Your task to perform on an android device: Find coffee shops on Maps Image 0: 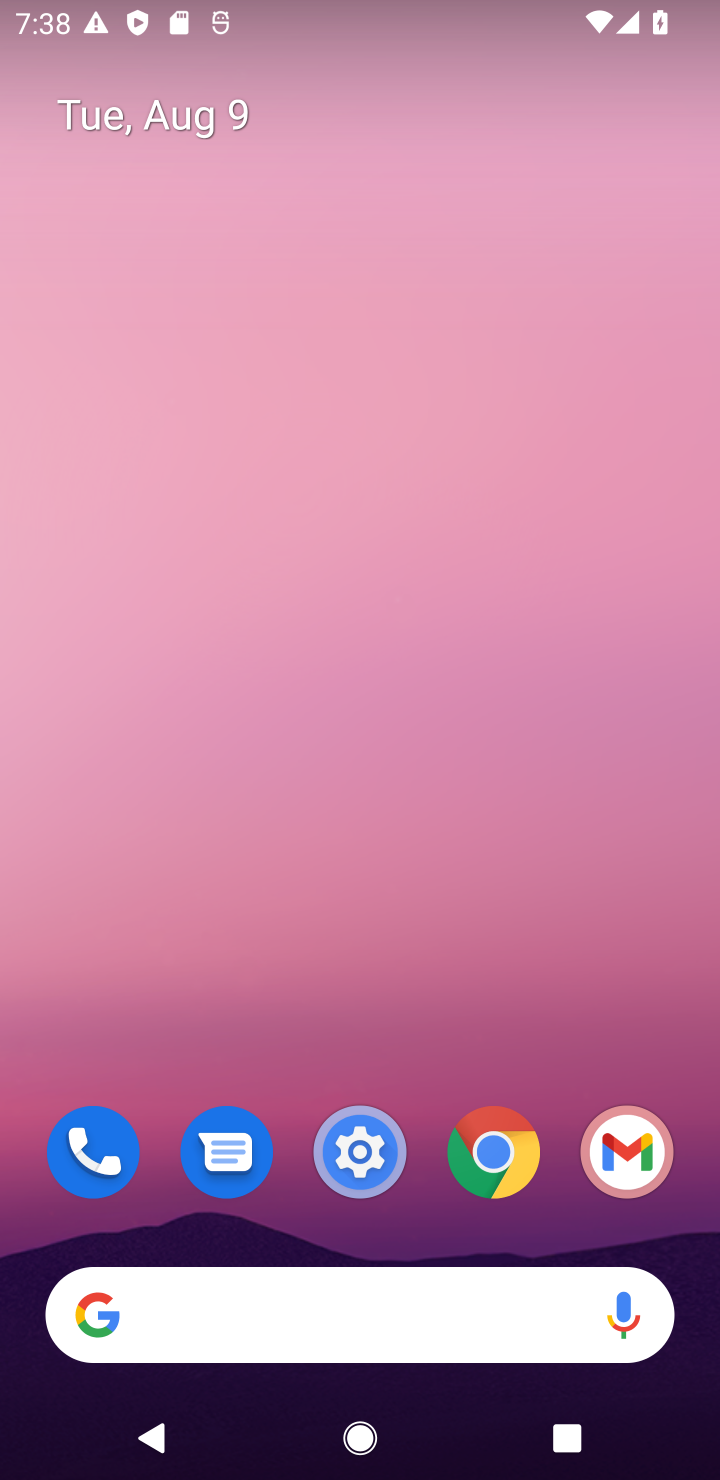
Step 0: drag from (369, 1055) to (480, 199)
Your task to perform on an android device: Find coffee shops on Maps Image 1: 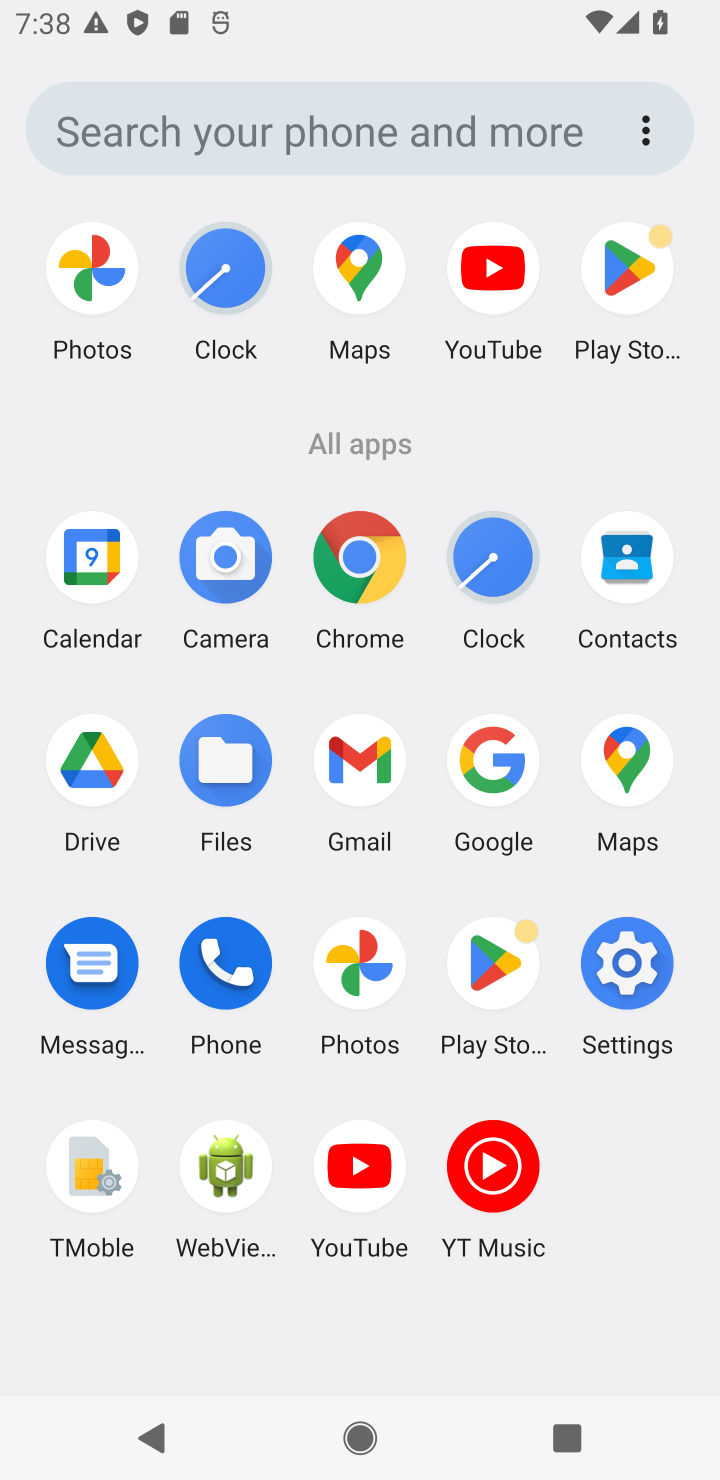
Step 1: click (382, 280)
Your task to perform on an android device: Find coffee shops on Maps Image 2: 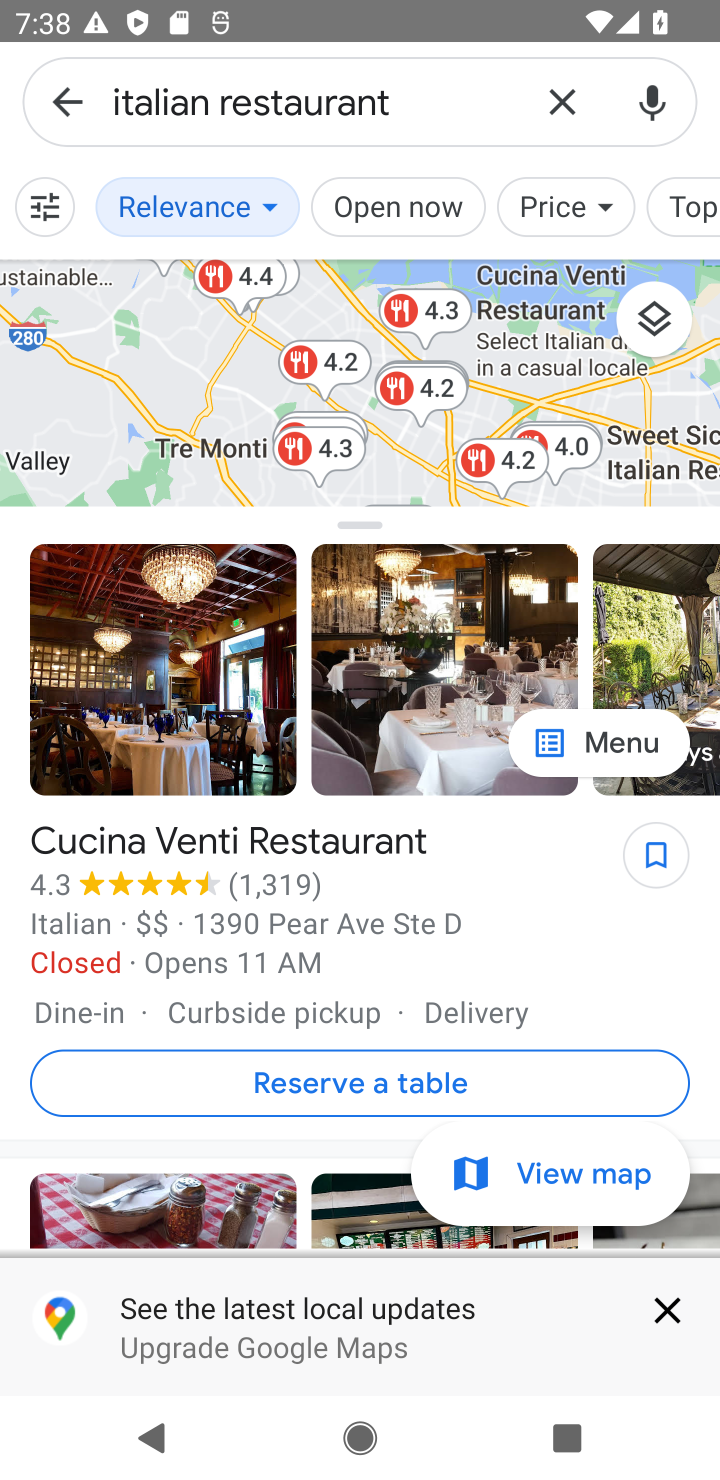
Step 2: click (558, 124)
Your task to perform on an android device: Find coffee shops on Maps Image 3: 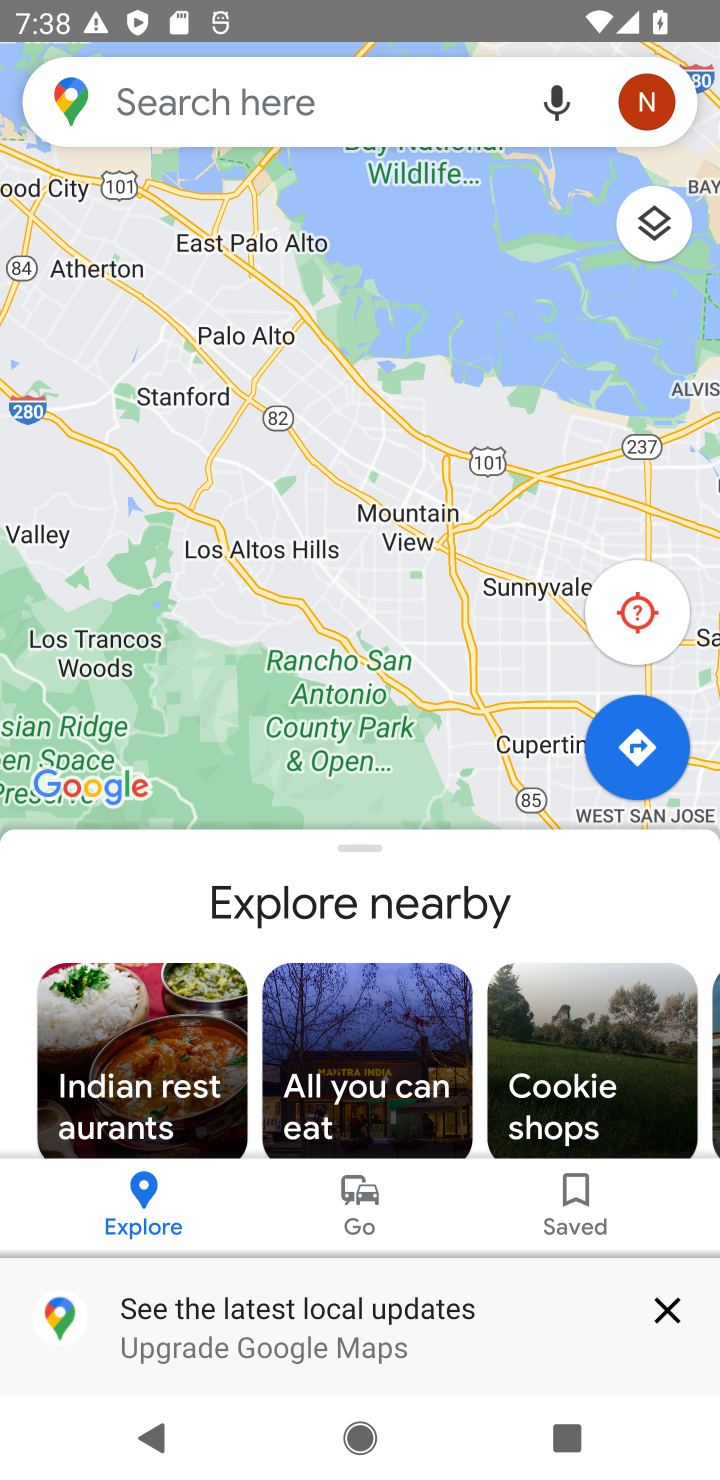
Step 3: click (375, 82)
Your task to perform on an android device: Find coffee shops on Maps Image 4: 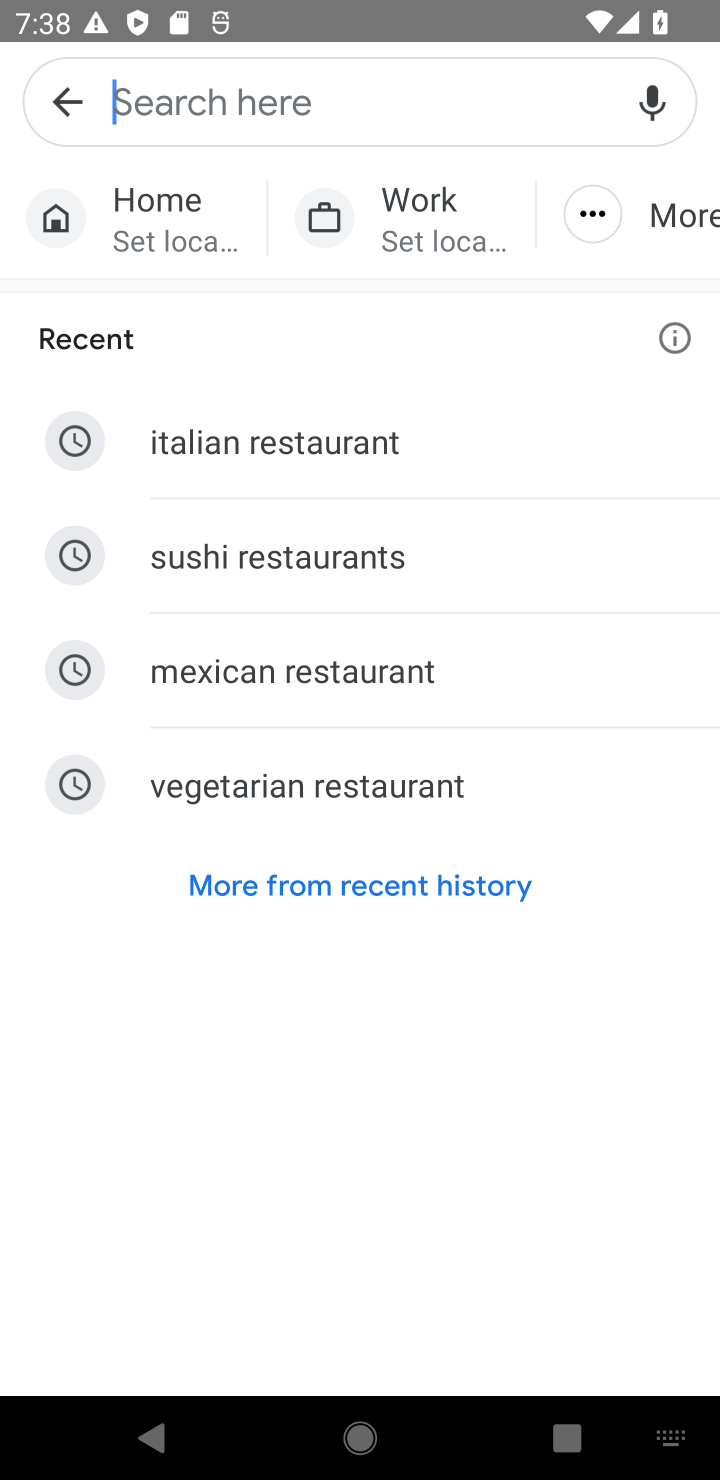
Step 4: type "coffee"
Your task to perform on an android device: Find coffee shops on Maps Image 5: 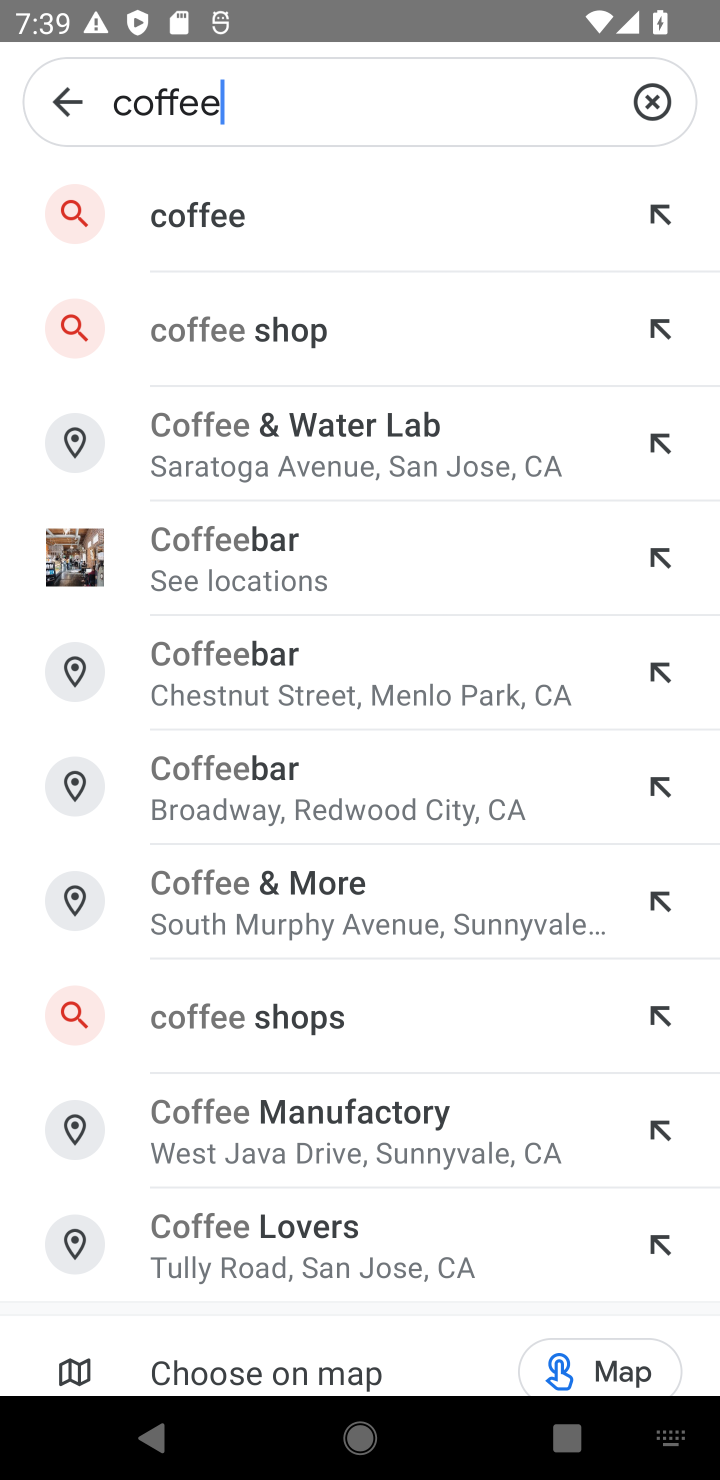
Step 5: click (322, 344)
Your task to perform on an android device: Find coffee shops on Maps Image 6: 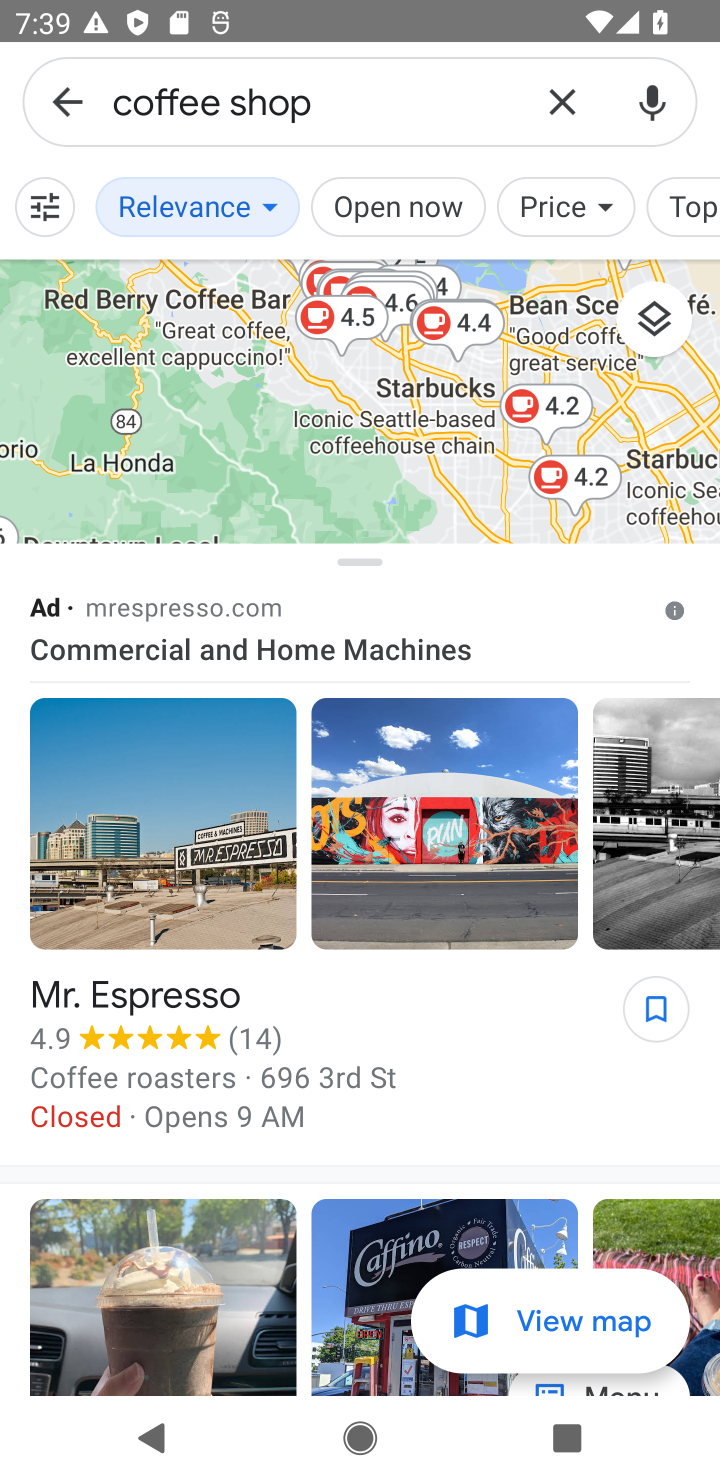
Step 6: click (355, 340)
Your task to perform on an android device: Find coffee shops on Maps Image 7: 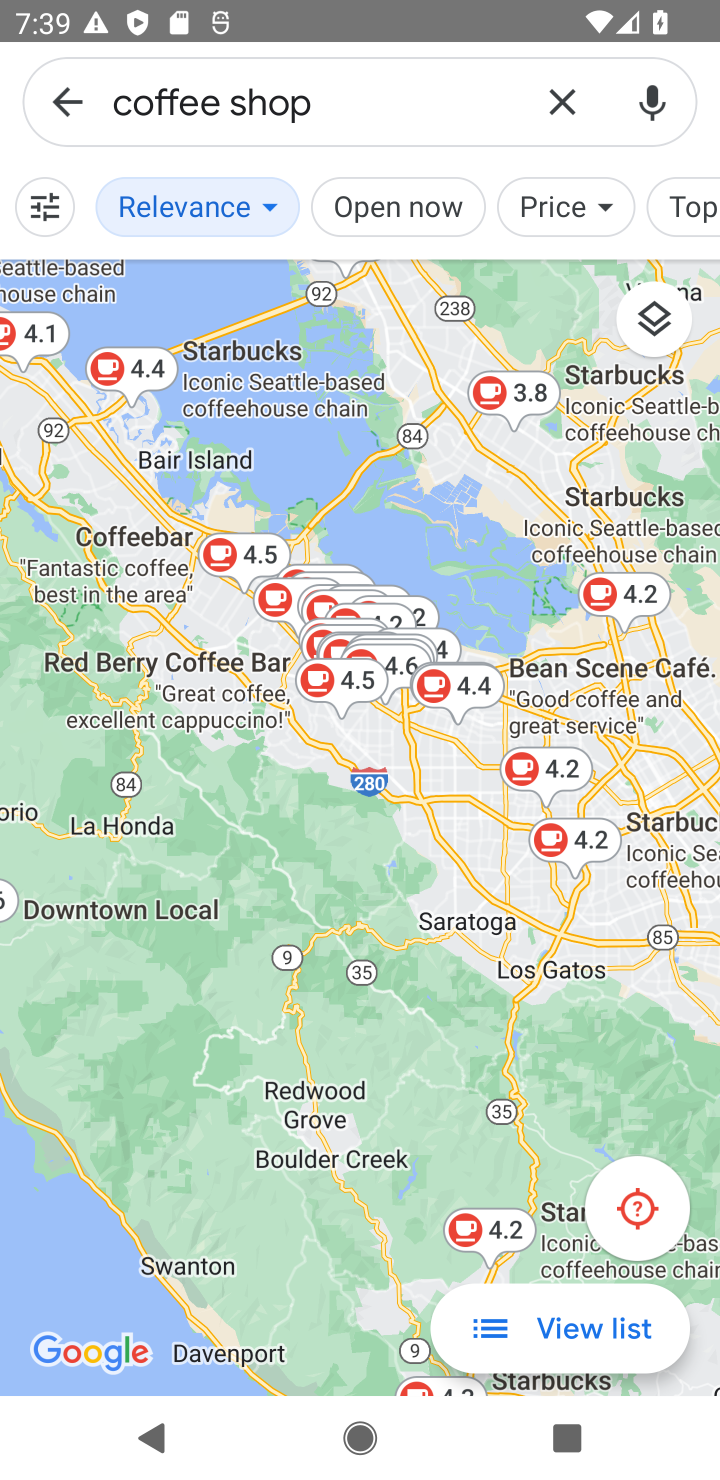
Step 7: click (378, 570)
Your task to perform on an android device: Find coffee shops on Maps Image 8: 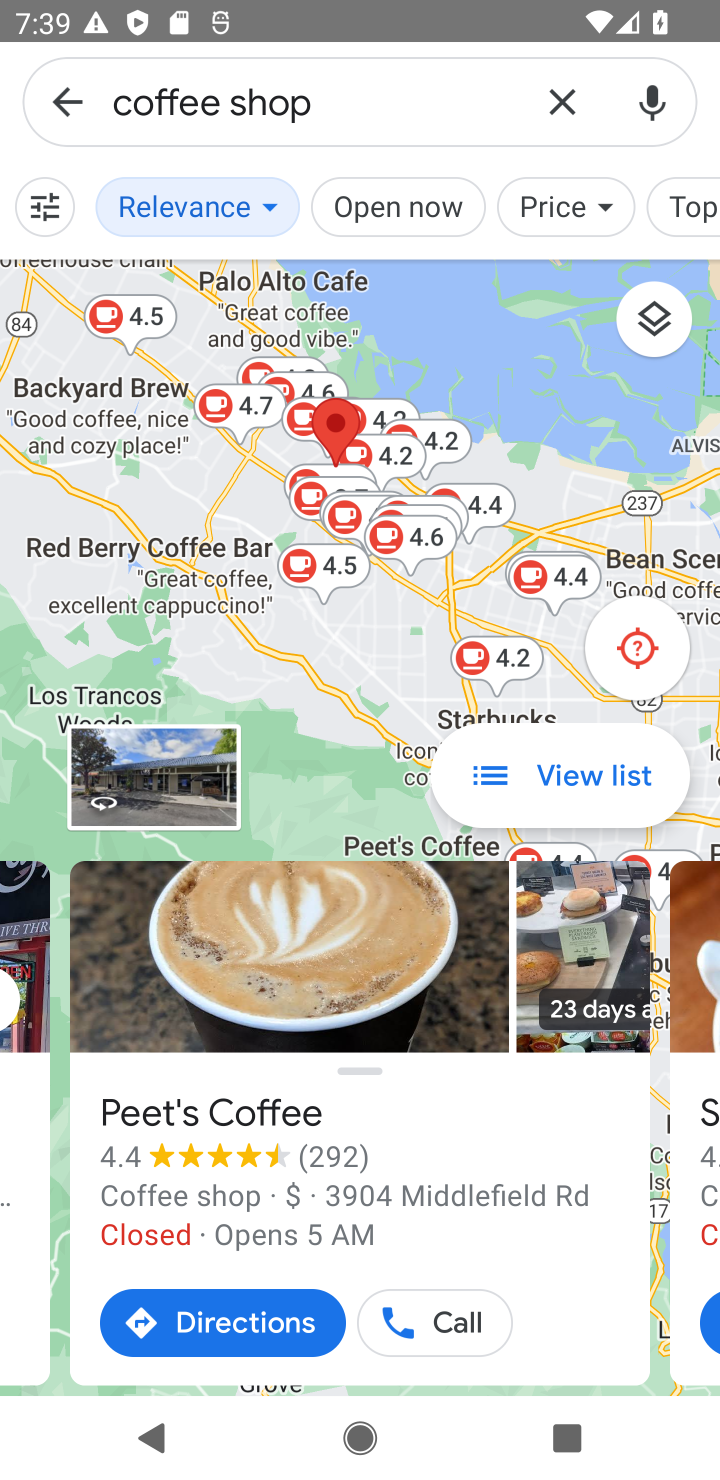
Step 8: task complete